Your task to perform on an android device: Open Android settings Image 0: 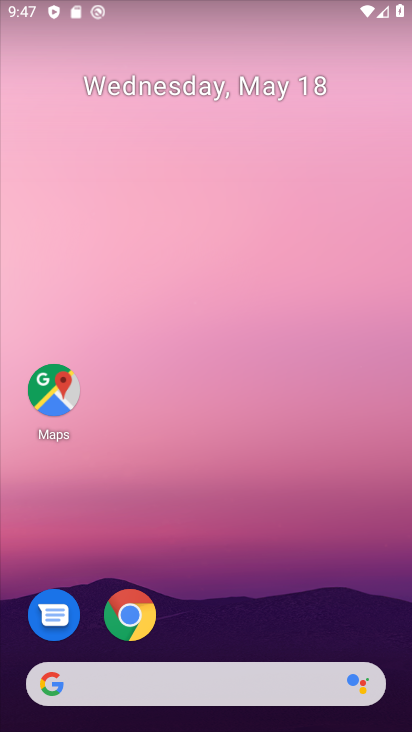
Step 0: drag from (233, 658) to (322, 21)
Your task to perform on an android device: Open Android settings Image 1: 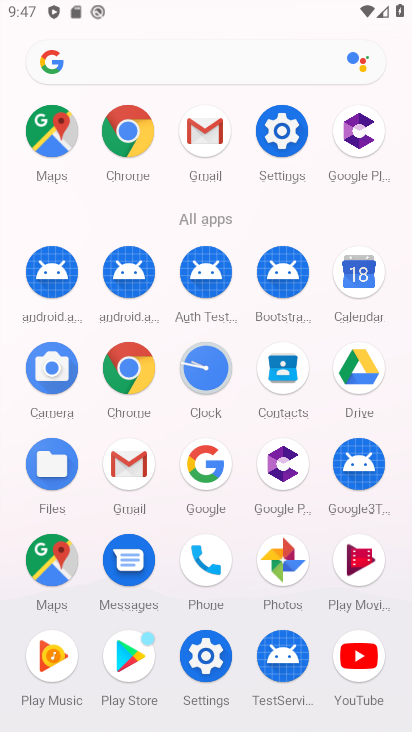
Step 1: click (286, 175)
Your task to perform on an android device: Open Android settings Image 2: 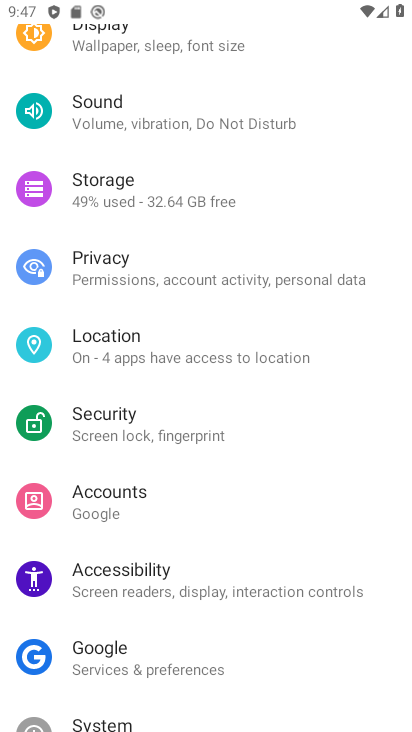
Step 2: task complete